Your task to perform on an android device: turn off sleep mode Image 0: 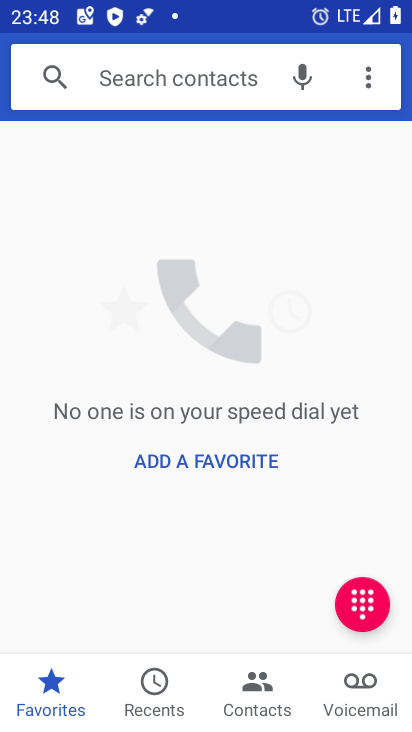
Step 0: press home button
Your task to perform on an android device: turn off sleep mode Image 1: 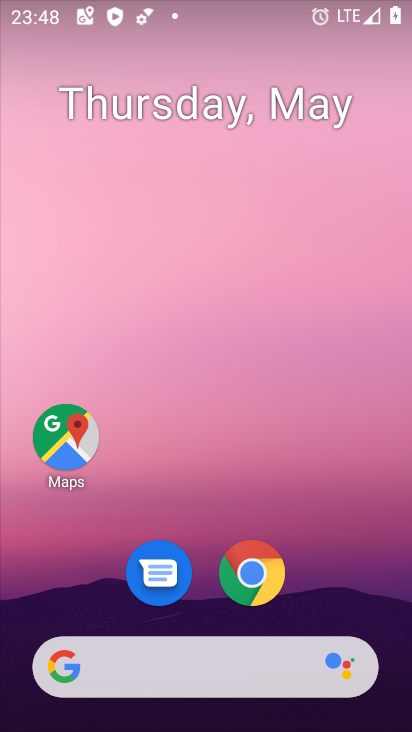
Step 1: drag from (196, 618) to (145, 221)
Your task to perform on an android device: turn off sleep mode Image 2: 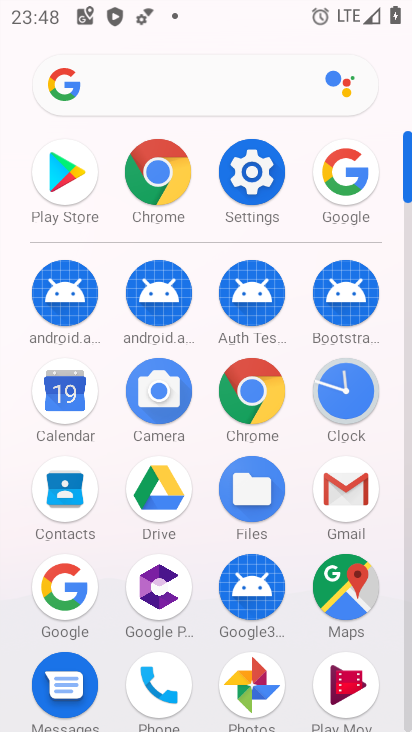
Step 2: click (266, 178)
Your task to perform on an android device: turn off sleep mode Image 3: 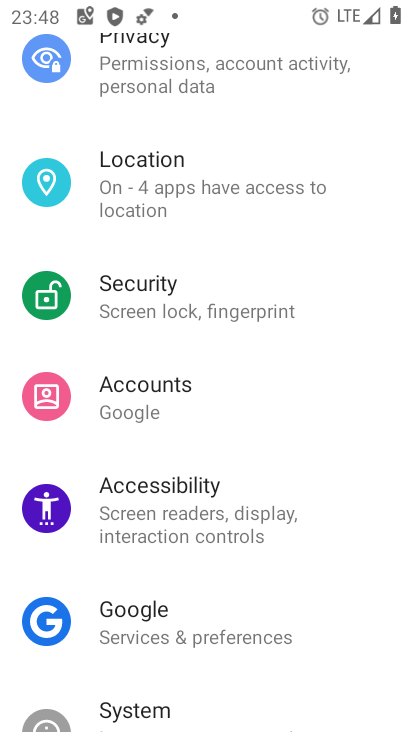
Step 3: drag from (186, 174) to (232, 461)
Your task to perform on an android device: turn off sleep mode Image 4: 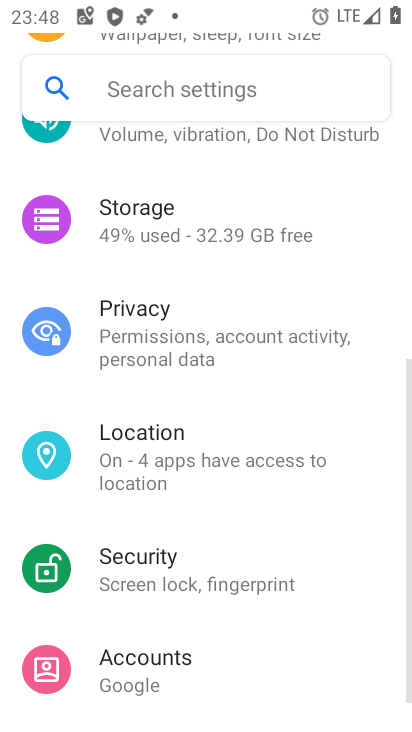
Step 4: drag from (207, 209) to (236, 528)
Your task to perform on an android device: turn off sleep mode Image 5: 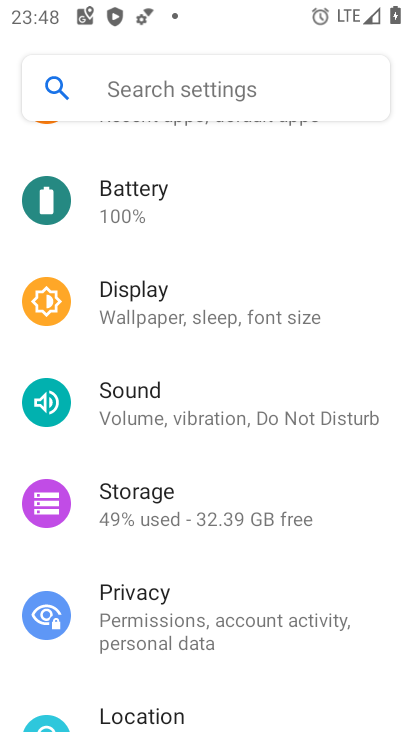
Step 5: click (184, 295)
Your task to perform on an android device: turn off sleep mode Image 6: 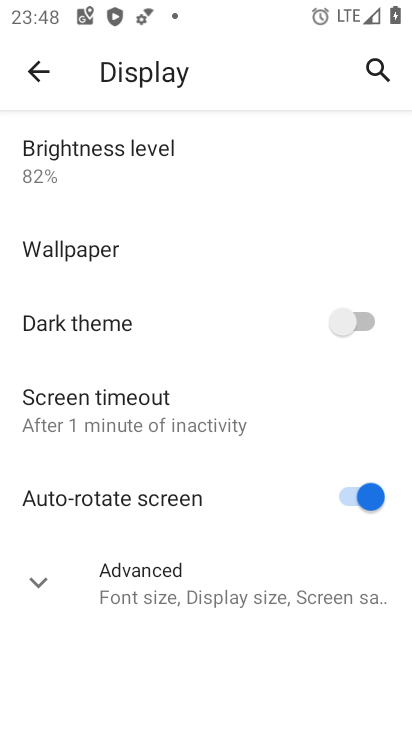
Step 6: click (168, 416)
Your task to perform on an android device: turn off sleep mode Image 7: 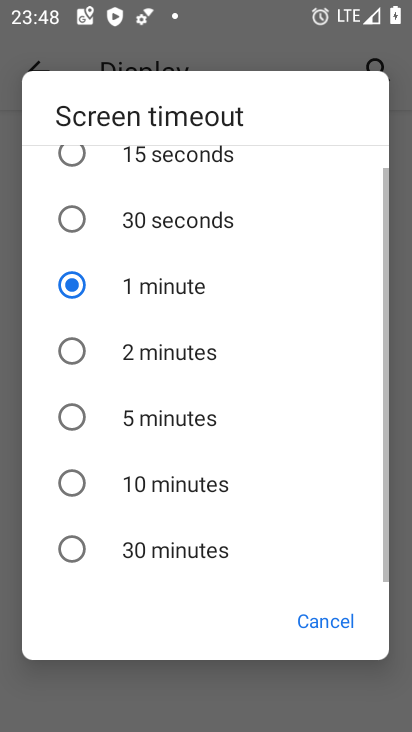
Step 7: click (163, 481)
Your task to perform on an android device: turn off sleep mode Image 8: 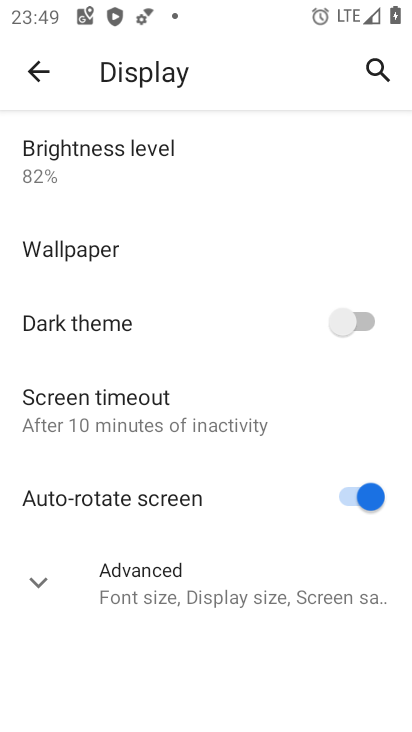
Step 8: task complete